Your task to perform on an android device: open a bookmark in the chrome app Image 0: 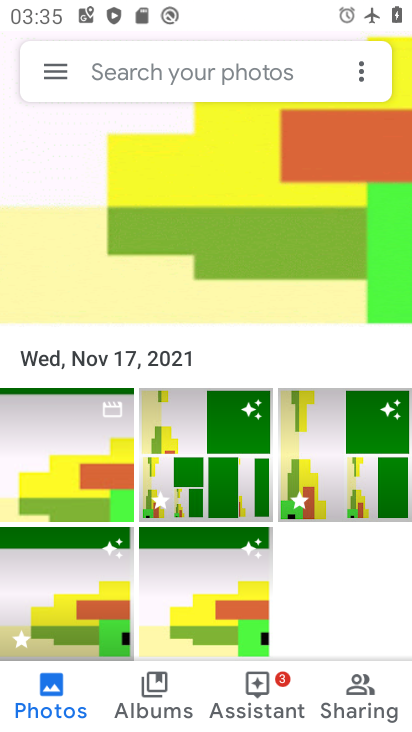
Step 0: press home button
Your task to perform on an android device: open a bookmark in the chrome app Image 1: 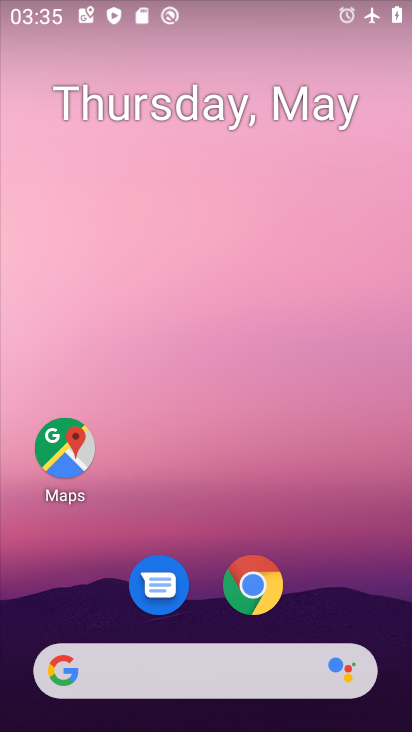
Step 1: click (260, 580)
Your task to perform on an android device: open a bookmark in the chrome app Image 2: 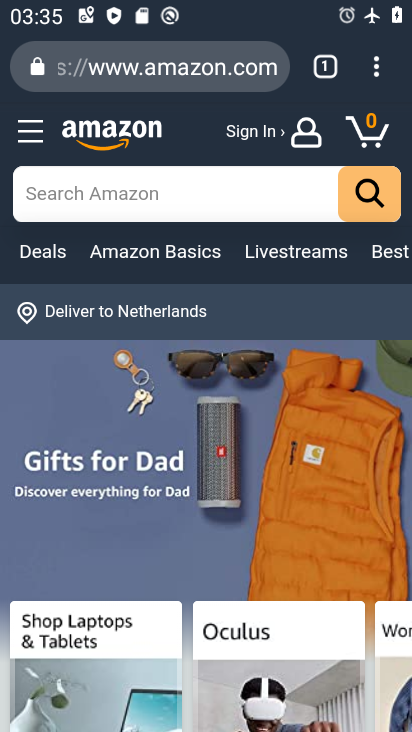
Step 2: click (374, 65)
Your task to perform on an android device: open a bookmark in the chrome app Image 3: 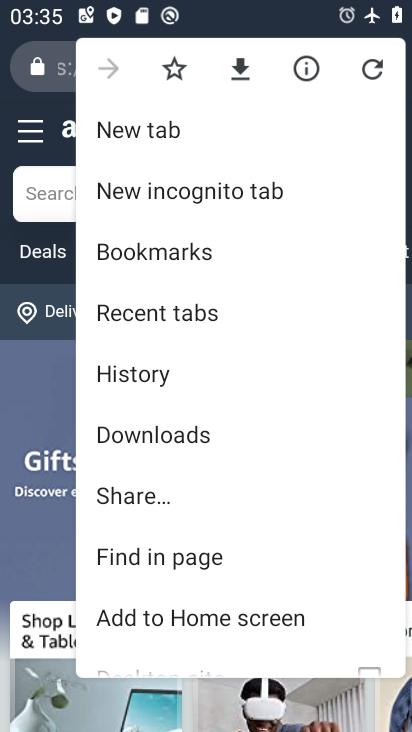
Step 3: click (197, 244)
Your task to perform on an android device: open a bookmark in the chrome app Image 4: 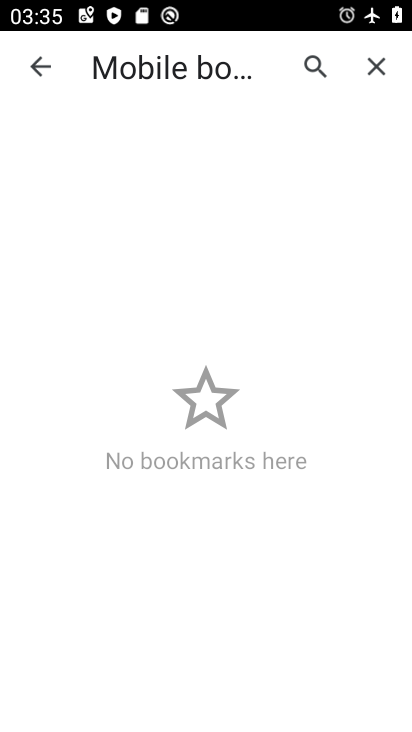
Step 4: task complete